Your task to perform on an android device: When is my next appointment? Image 0: 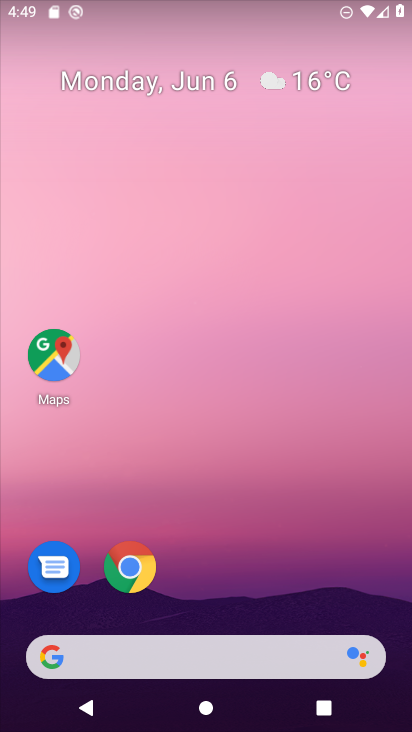
Step 0: drag from (134, 159) to (172, 123)
Your task to perform on an android device: When is my next appointment? Image 1: 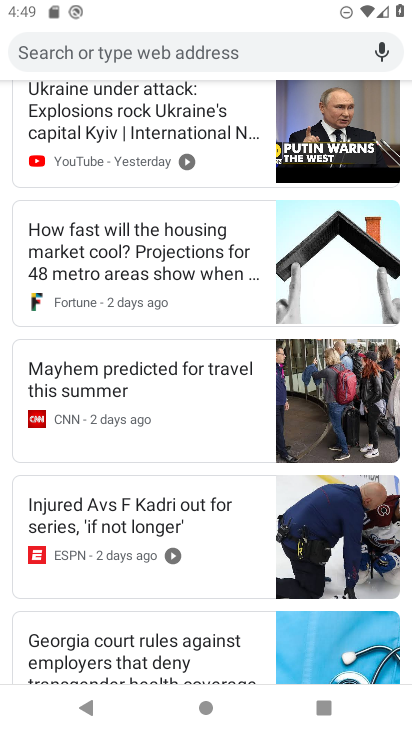
Step 1: press back button
Your task to perform on an android device: When is my next appointment? Image 2: 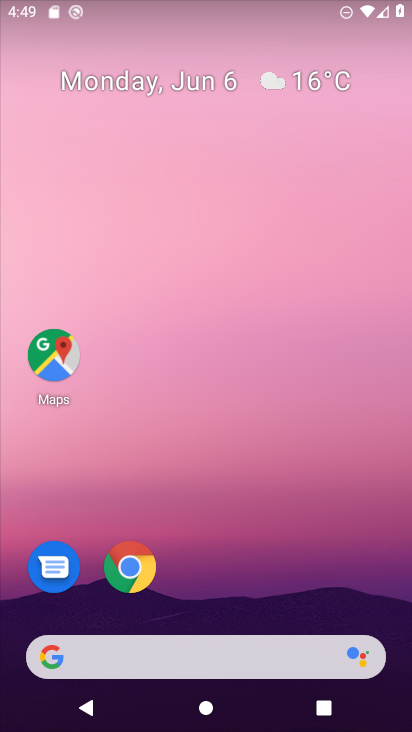
Step 2: drag from (219, 529) to (96, 74)
Your task to perform on an android device: When is my next appointment? Image 3: 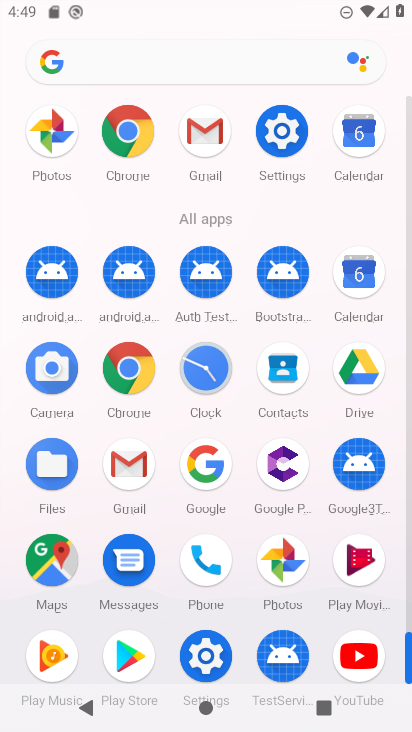
Step 3: click (354, 278)
Your task to perform on an android device: When is my next appointment? Image 4: 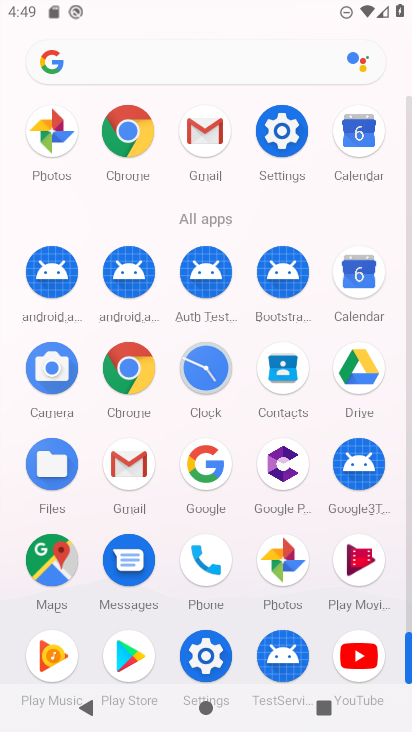
Step 4: click (354, 278)
Your task to perform on an android device: When is my next appointment? Image 5: 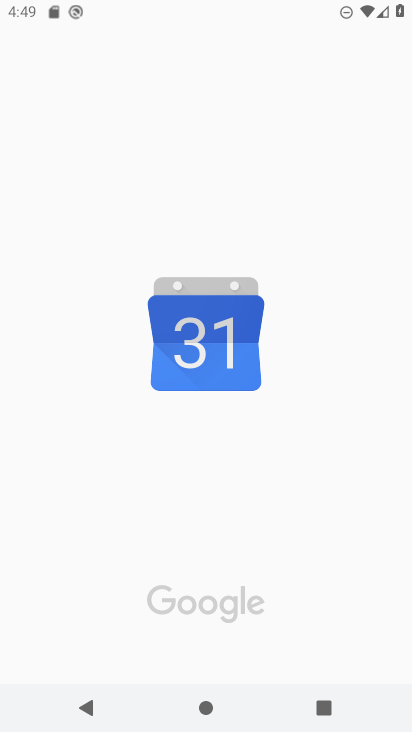
Step 5: click (356, 277)
Your task to perform on an android device: When is my next appointment? Image 6: 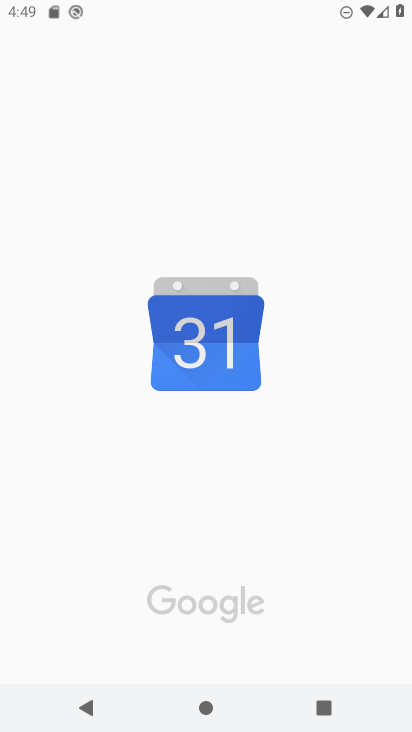
Step 6: click (358, 274)
Your task to perform on an android device: When is my next appointment? Image 7: 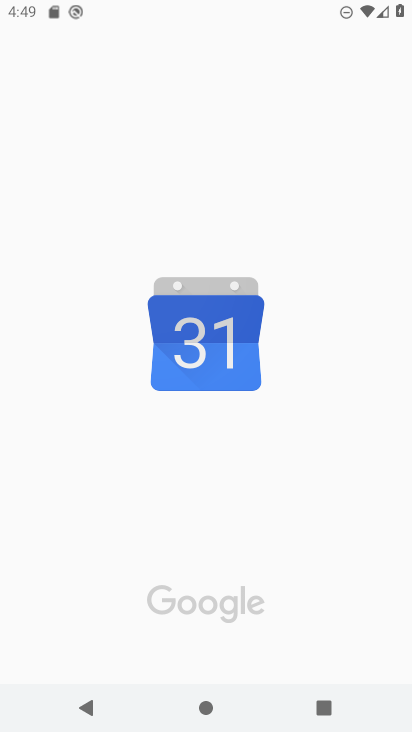
Step 7: click (358, 274)
Your task to perform on an android device: When is my next appointment? Image 8: 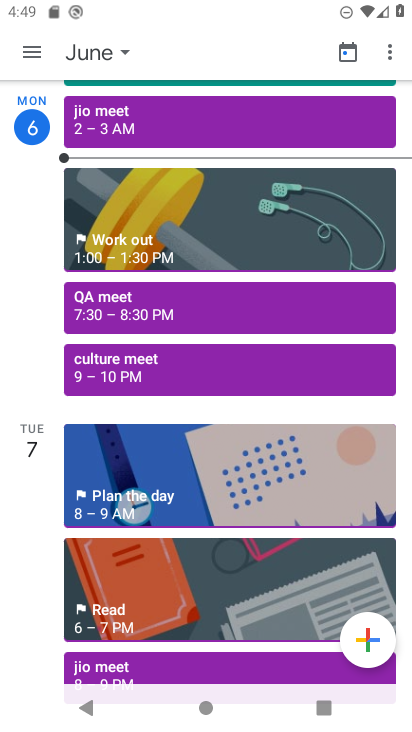
Step 8: task complete